Your task to perform on an android device: turn on priority inbox in the gmail app Image 0: 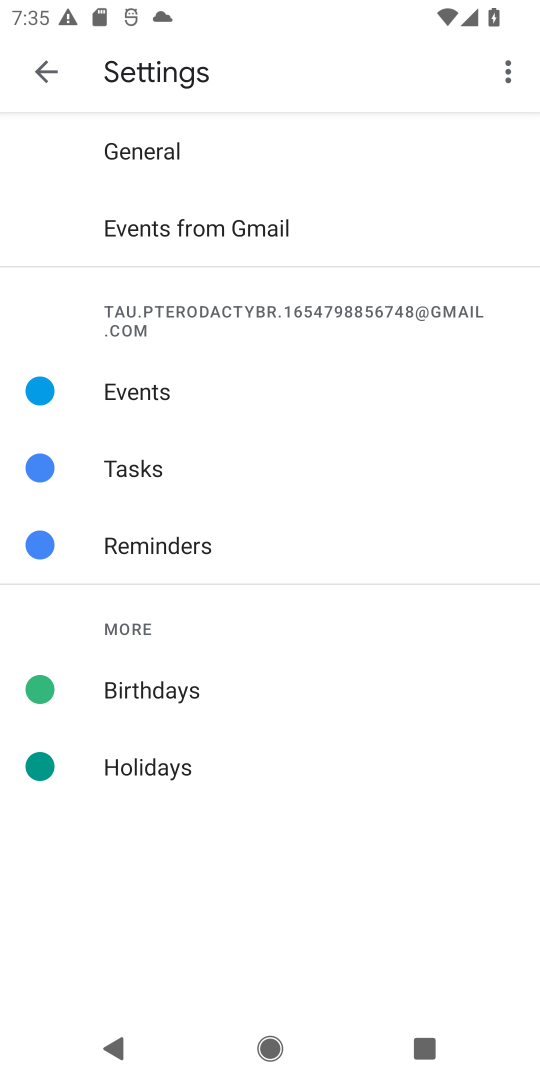
Step 0: press home button
Your task to perform on an android device: turn on priority inbox in the gmail app Image 1: 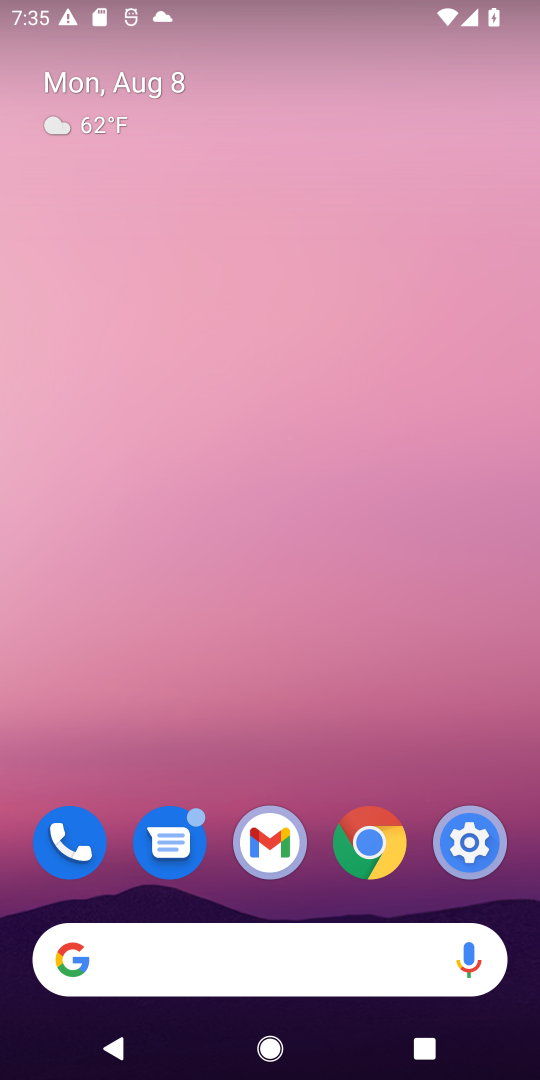
Step 1: click (269, 830)
Your task to perform on an android device: turn on priority inbox in the gmail app Image 2: 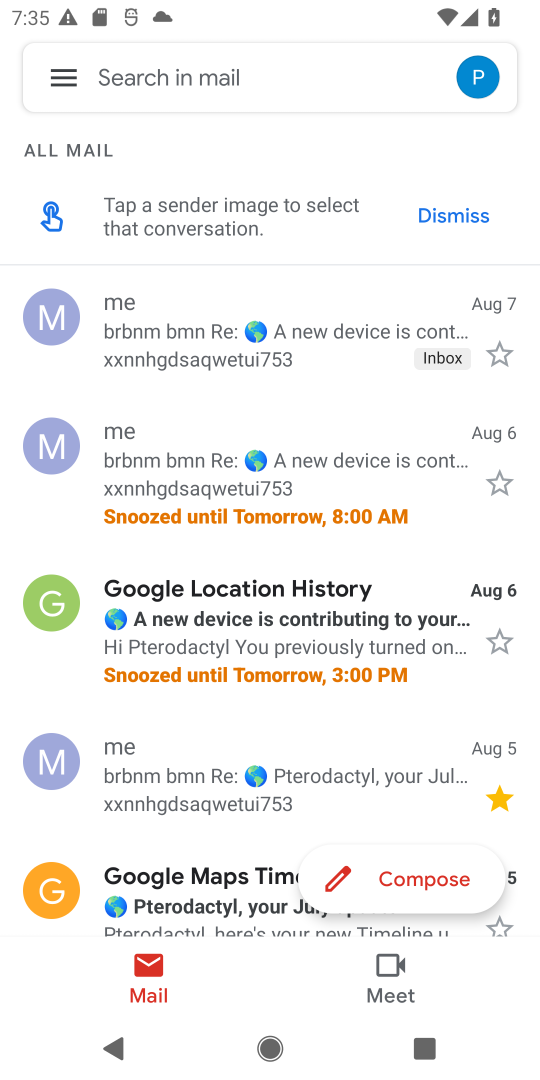
Step 2: click (67, 75)
Your task to perform on an android device: turn on priority inbox in the gmail app Image 3: 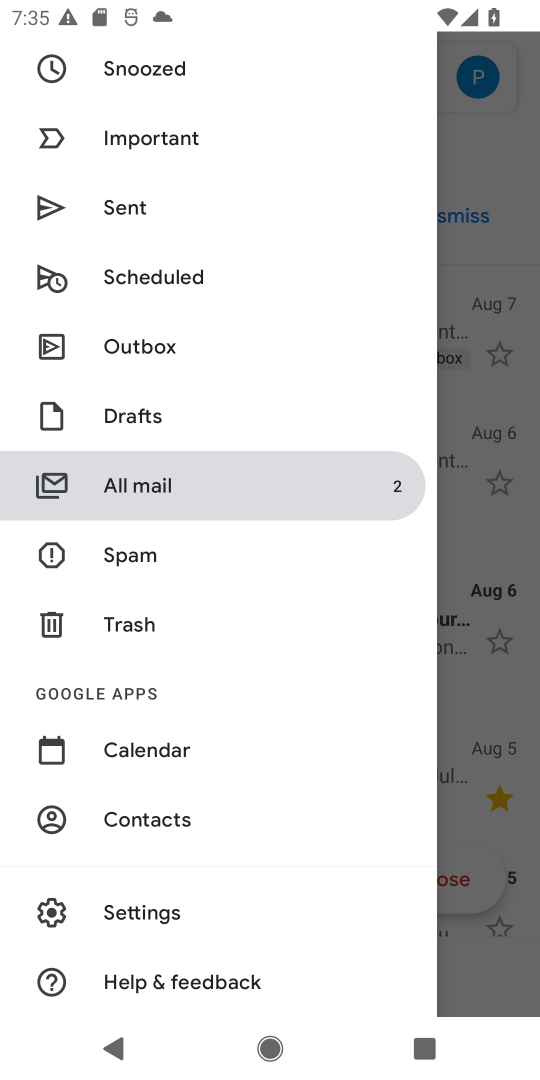
Step 3: click (140, 898)
Your task to perform on an android device: turn on priority inbox in the gmail app Image 4: 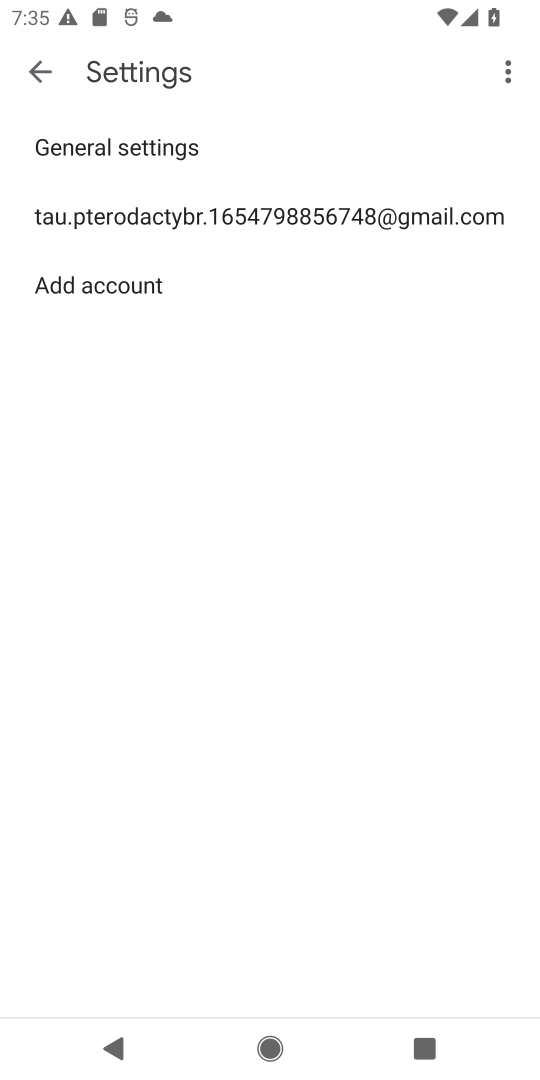
Step 4: click (218, 201)
Your task to perform on an android device: turn on priority inbox in the gmail app Image 5: 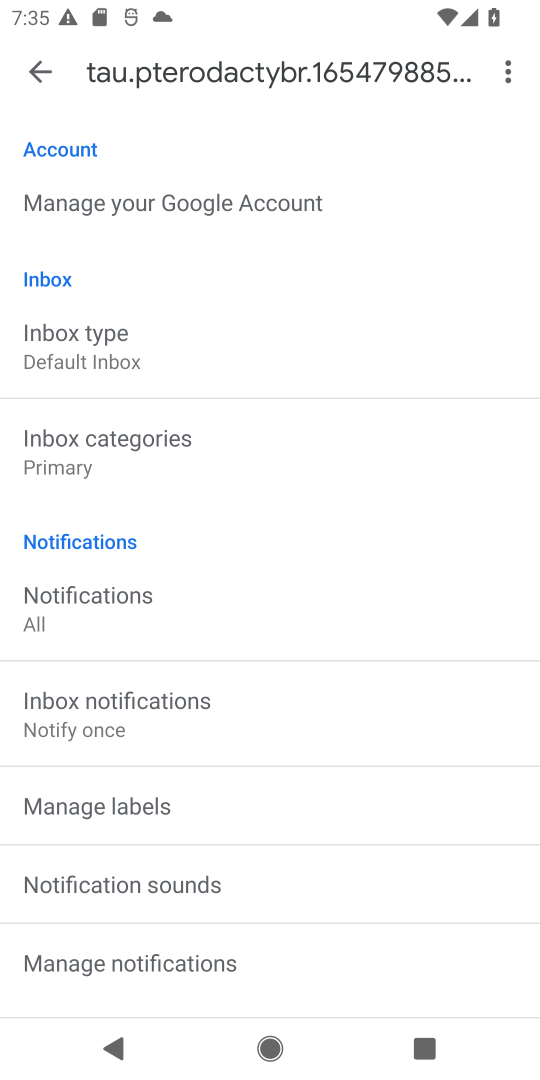
Step 5: click (84, 350)
Your task to perform on an android device: turn on priority inbox in the gmail app Image 6: 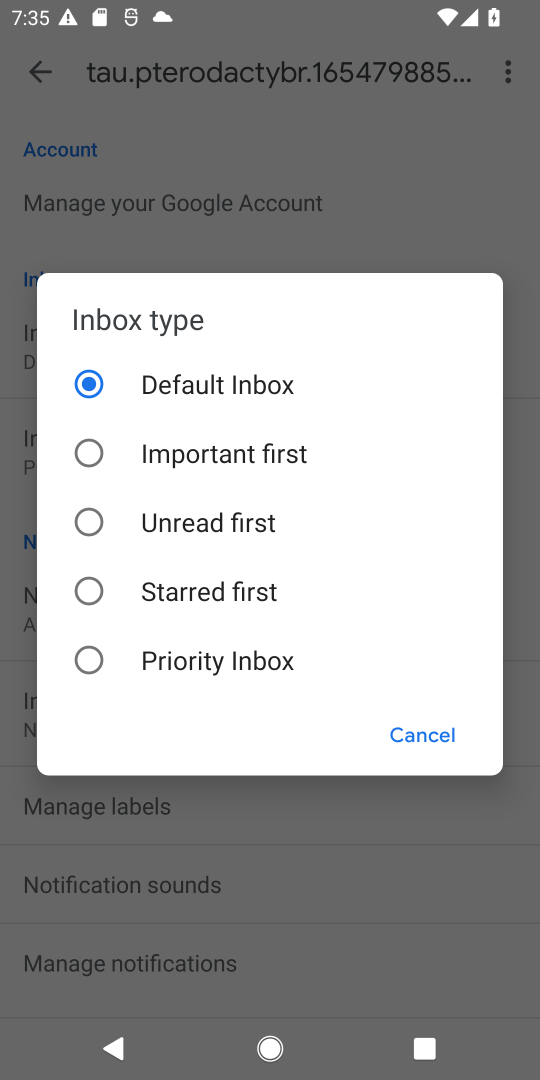
Step 6: click (86, 650)
Your task to perform on an android device: turn on priority inbox in the gmail app Image 7: 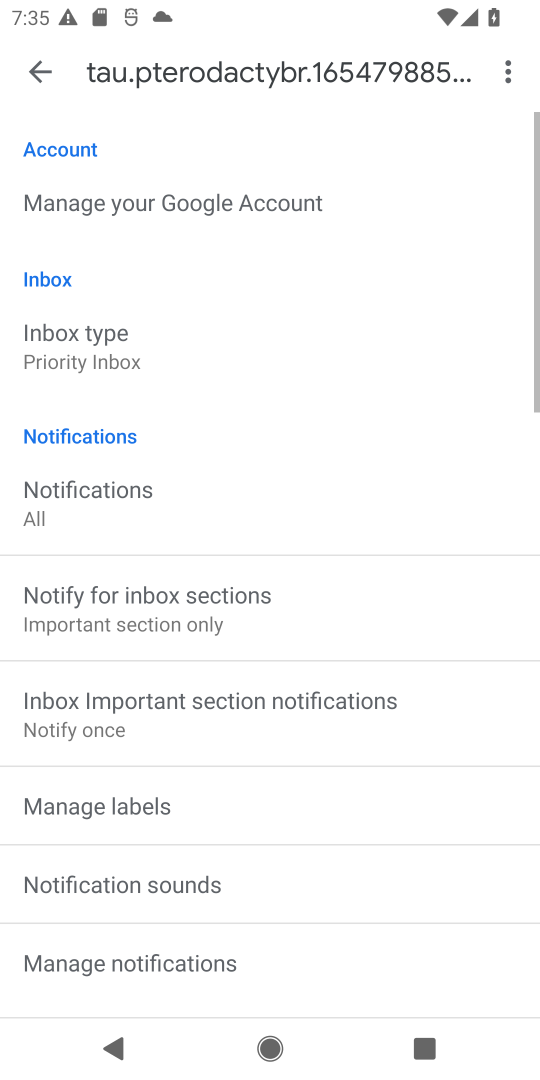
Step 7: task complete